Your task to perform on an android device: empty trash in the gmail app Image 0: 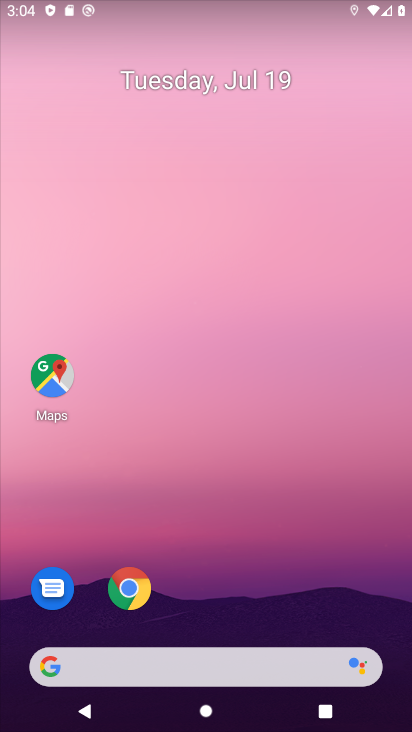
Step 0: drag from (233, 576) to (245, 150)
Your task to perform on an android device: empty trash in the gmail app Image 1: 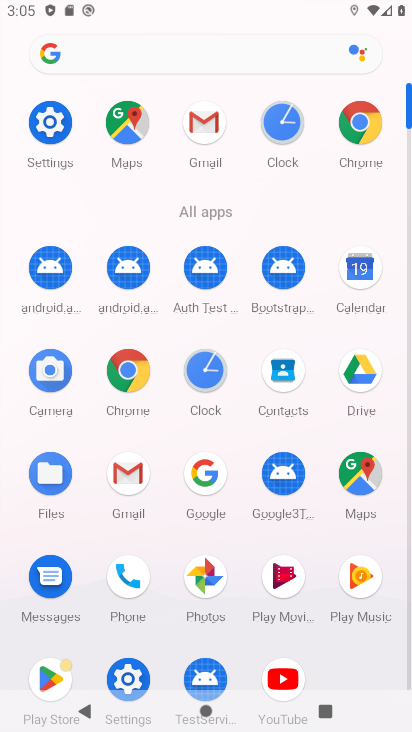
Step 1: click (204, 115)
Your task to perform on an android device: empty trash in the gmail app Image 2: 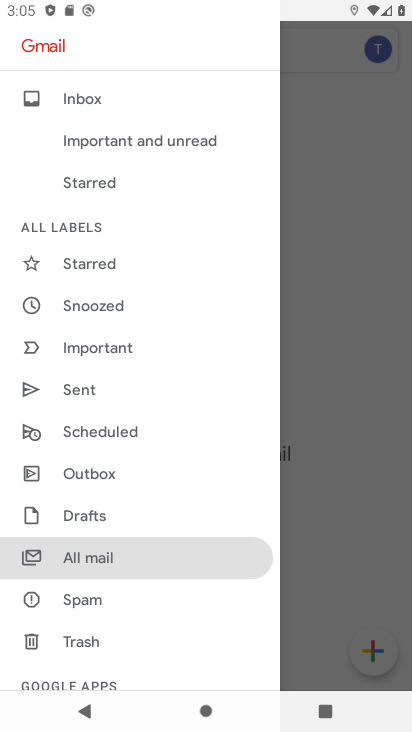
Step 2: click (89, 557)
Your task to perform on an android device: empty trash in the gmail app Image 3: 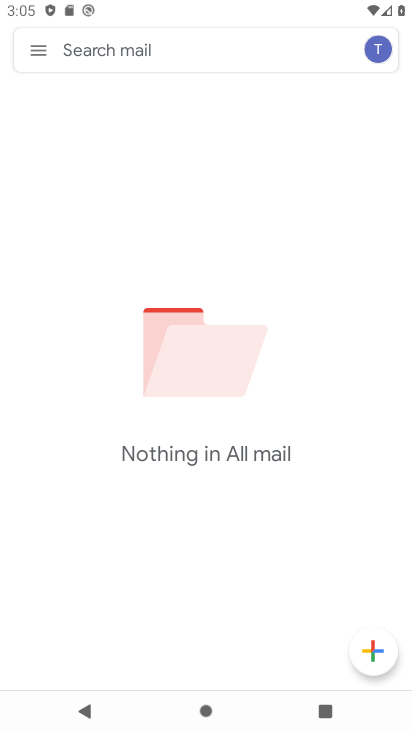
Step 3: click (35, 51)
Your task to perform on an android device: empty trash in the gmail app Image 4: 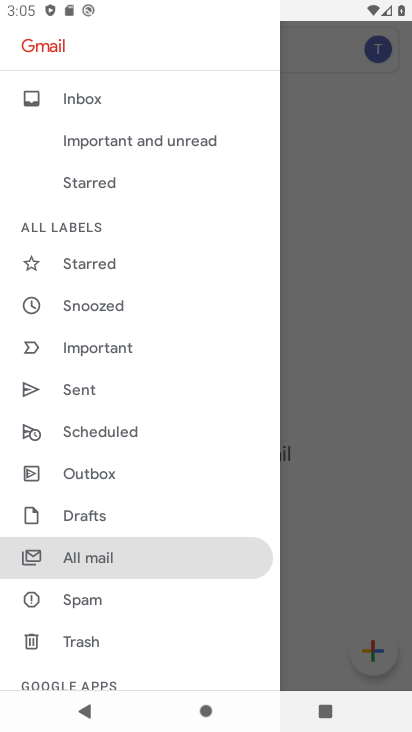
Step 4: click (76, 643)
Your task to perform on an android device: empty trash in the gmail app Image 5: 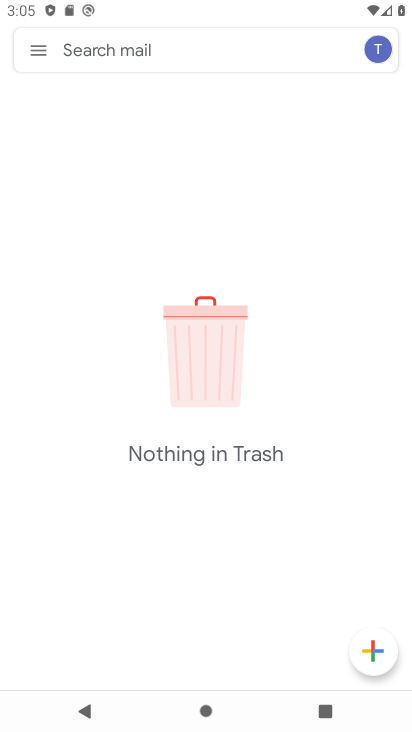
Step 5: task complete